Your task to perform on an android device: turn pop-ups off in chrome Image 0: 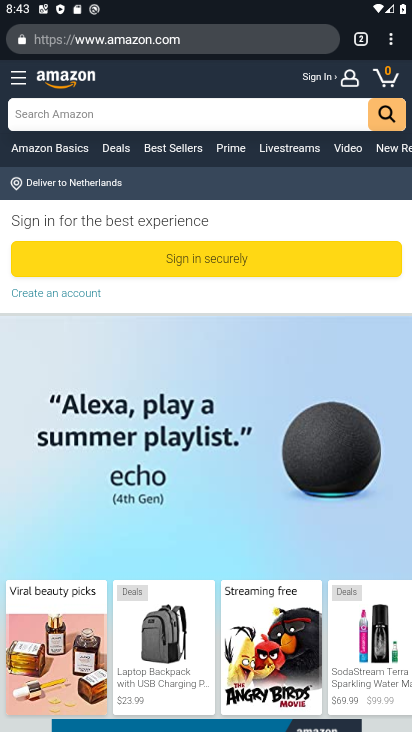
Step 0: press home button
Your task to perform on an android device: turn pop-ups off in chrome Image 1: 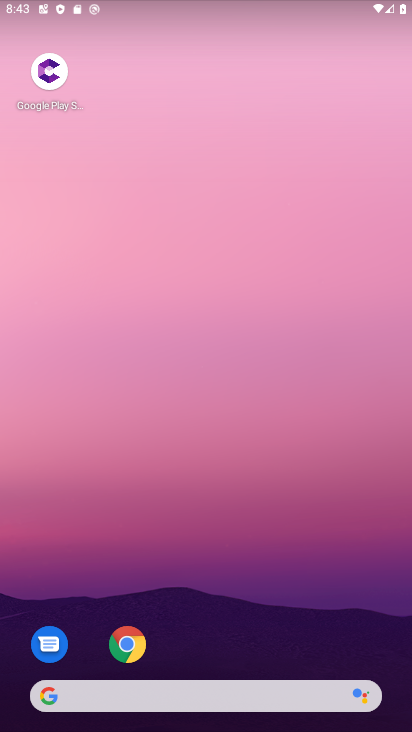
Step 1: drag from (253, 620) to (233, 287)
Your task to perform on an android device: turn pop-ups off in chrome Image 2: 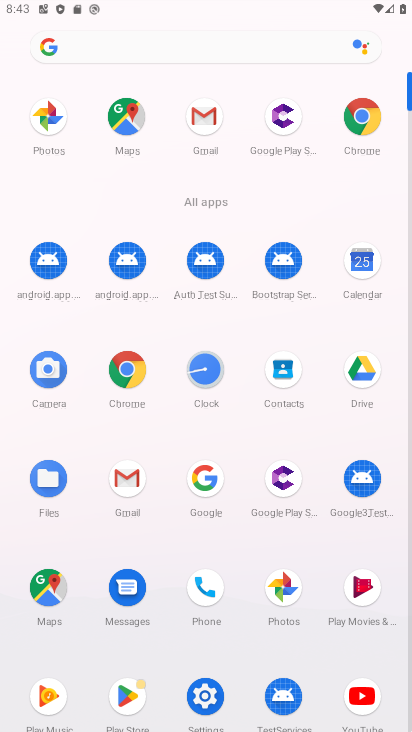
Step 2: click (361, 115)
Your task to perform on an android device: turn pop-ups off in chrome Image 3: 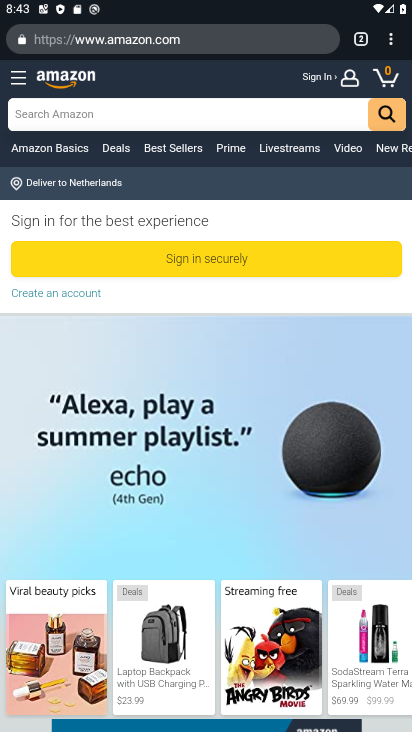
Step 3: drag from (392, 42) to (252, 477)
Your task to perform on an android device: turn pop-ups off in chrome Image 4: 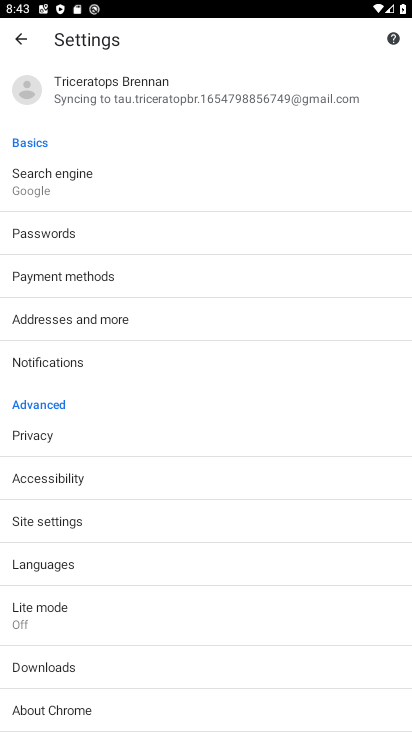
Step 4: click (43, 514)
Your task to perform on an android device: turn pop-ups off in chrome Image 5: 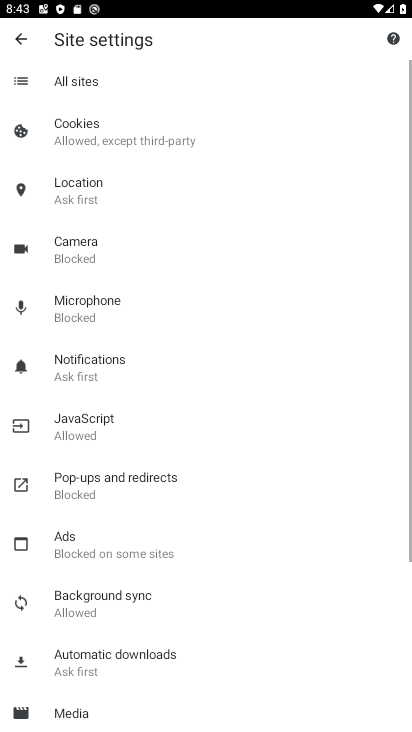
Step 5: click (90, 476)
Your task to perform on an android device: turn pop-ups off in chrome Image 6: 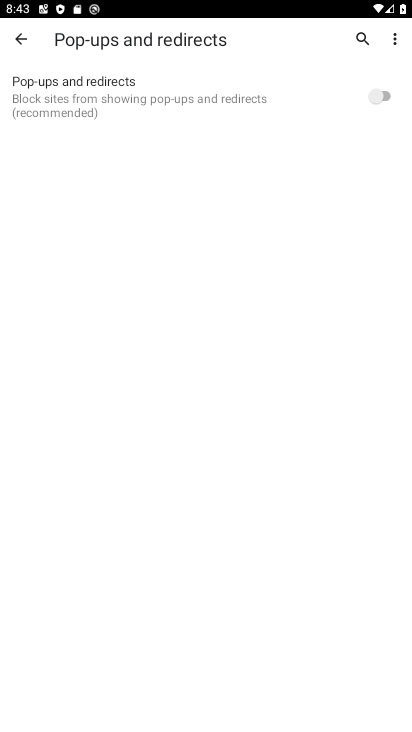
Step 6: task complete